Your task to perform on an android device: Open internet settings Image 0: 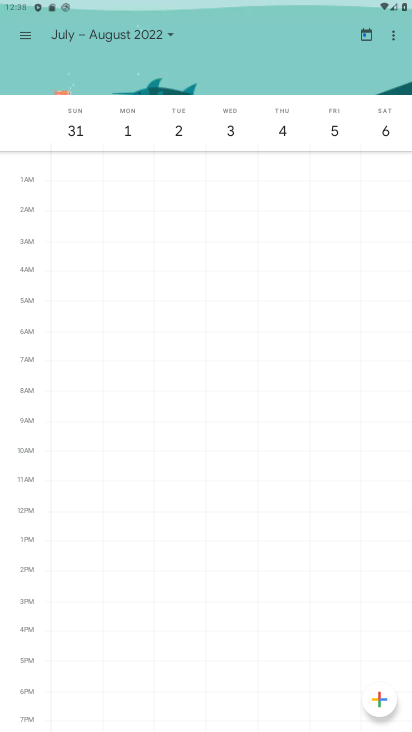
Step 0: press home button
Your task to perform on an android device: Open internet settings Image 1: 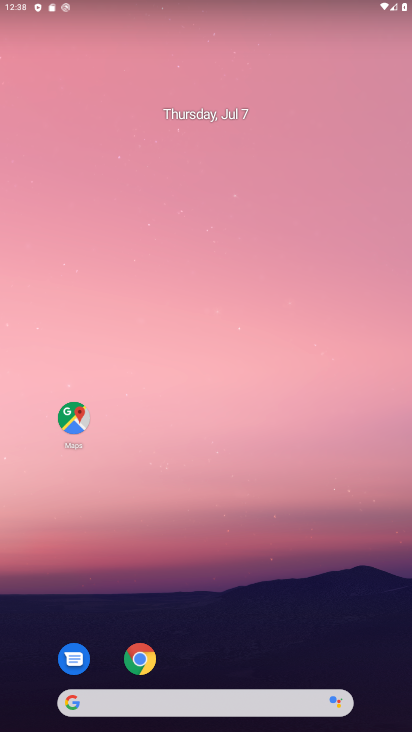
Step 1: drag from (215, 556) to (164, 118)
Your task to perform on an android device: Open internet settings Image 2: 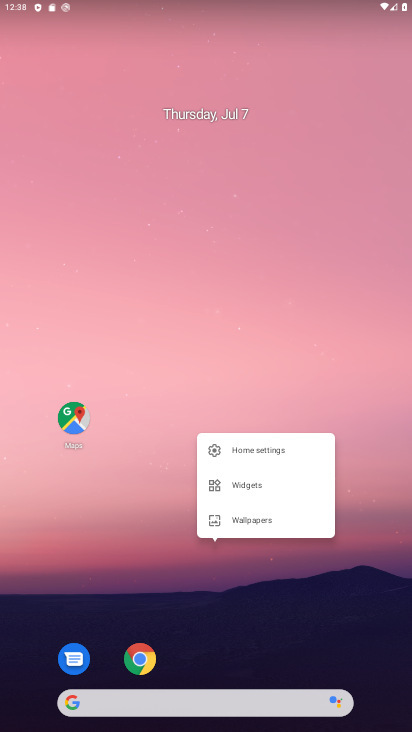
Step 2: click (138, 400)
Your task to perform on an android device: Open internet settings Image 3: 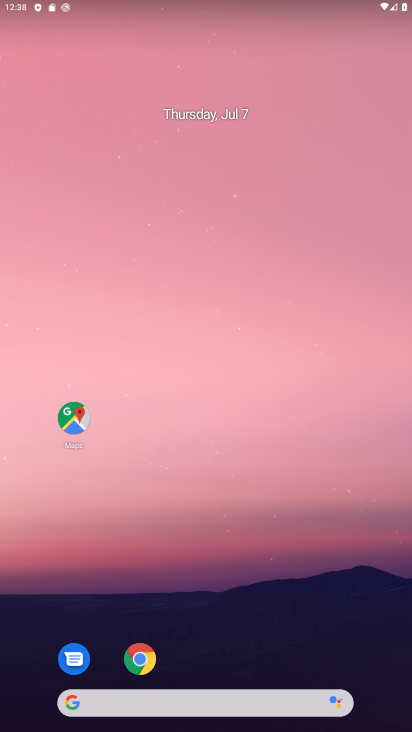
Step 3: drag from (227, 666) to (225, 74)
Your task to perform on an android device: Open internet settings Image 4: 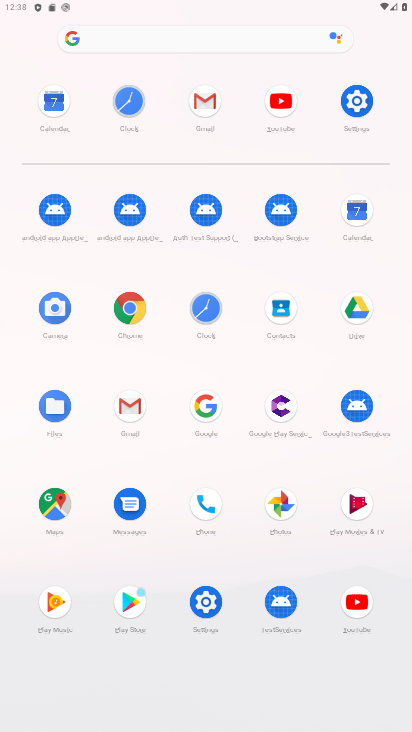
Step 4: click (353, 103)
Your task to perform on an android device: Open internet settings Image 5: 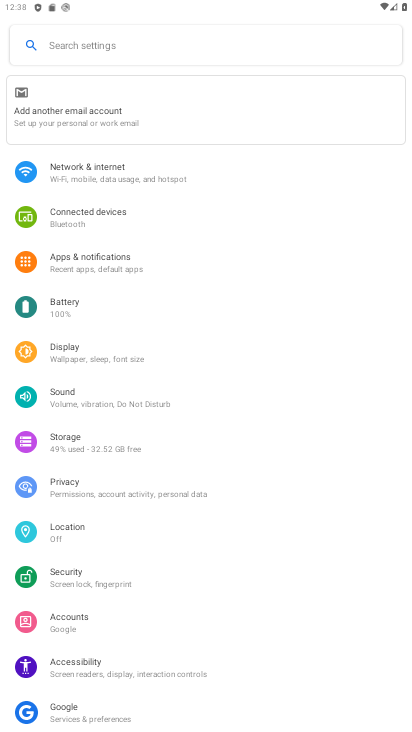
Step 5: click (78, 158)
Your task to perform on an android device: Open internet settings Image 6: 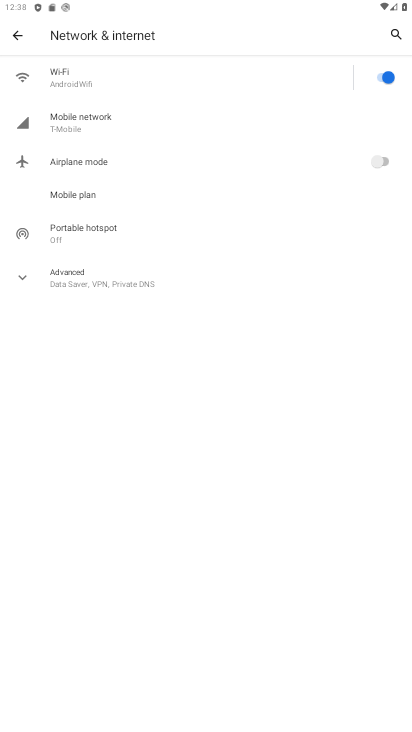
Step 6: task complete